Your task to perform on an android device: Go to network settings Image 0: 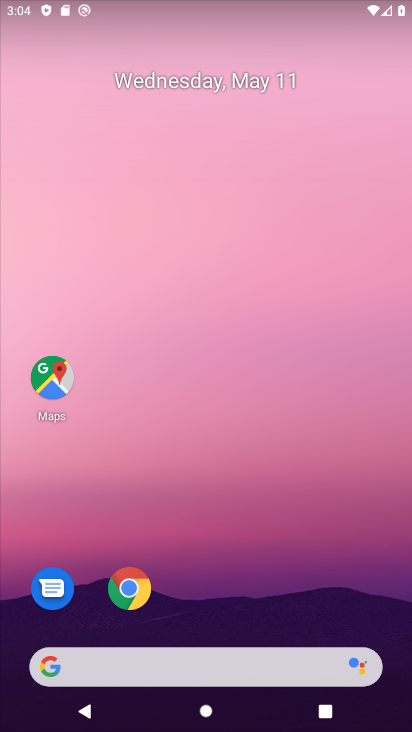
Step 0: drag from (204, 615) to (271, 46)
Your task to perform on an android device: Go to network settings Image 1: 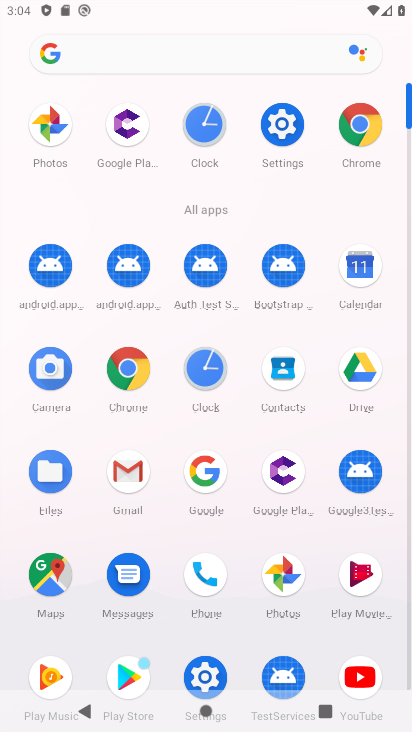
Step 1: click (282, 150)
Your task to perform on an android device: Go to network settings Image 2: 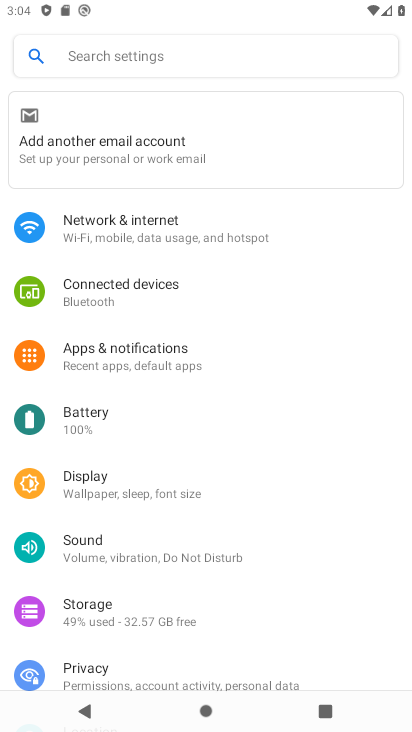
Step 2: click (167, 229)
Your task to perform on an android device: Go to network settings Image 3: 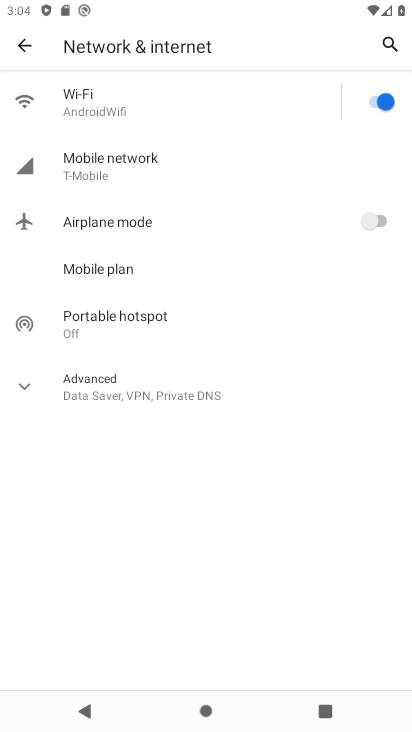
Step 3: task complete